Your task to perform on an android device: Open Android settings Image 0: 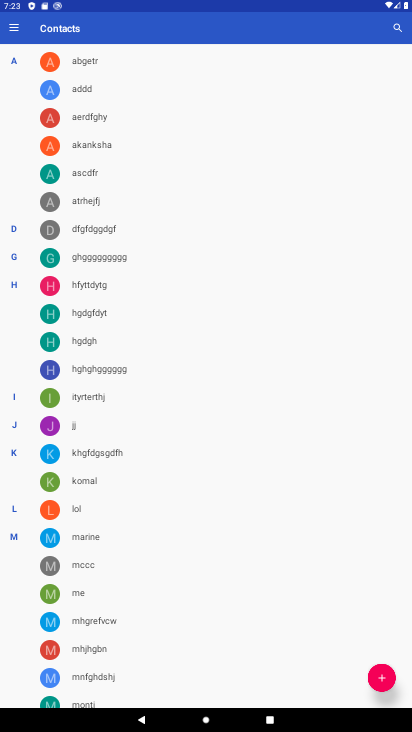
Step 0: press home button
Your task to perform on an android device: Open Android settings Image 1: 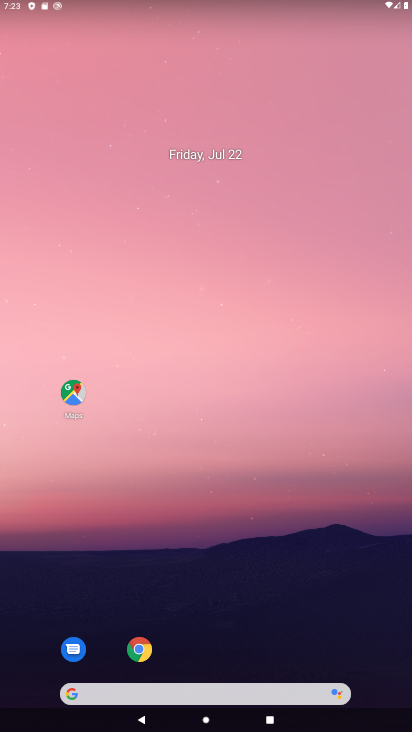
Step 1: drag from (203, 528) to (296, 64)
Your task to perform on an android device: Open Android settings Image 2: 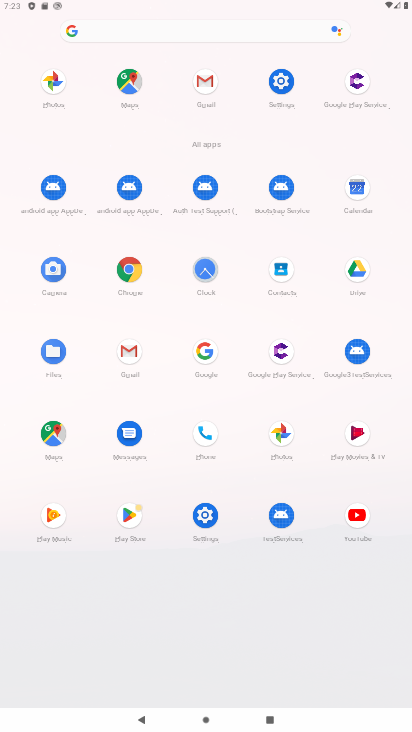
Step 2: click (277, 87)
Your task to perform on an android device: Open Android settings Image 3: 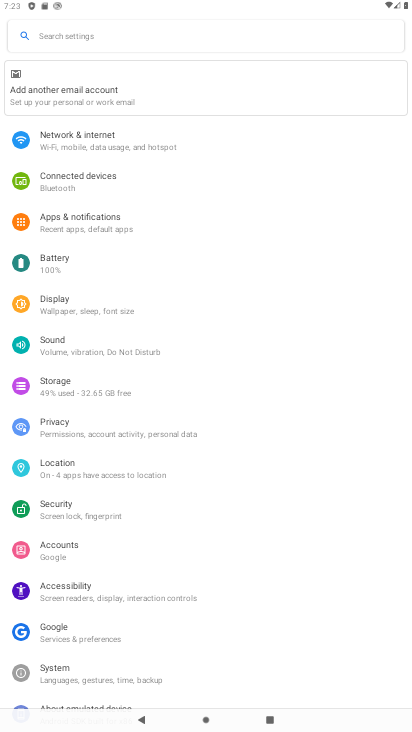
Step 3: task complete